Your task to perform on an android device: Open ESPN.com Image 0: 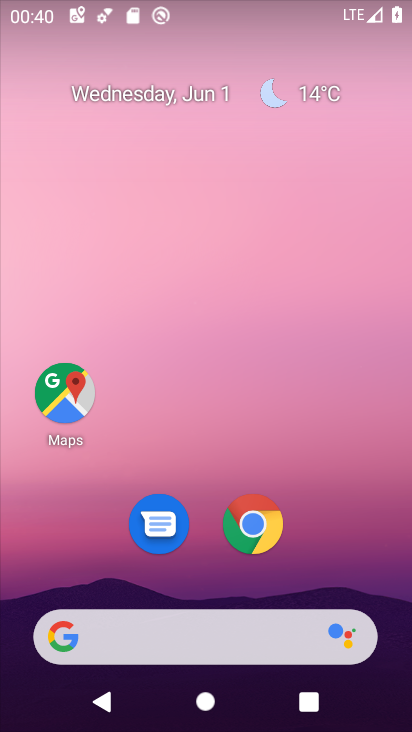
Step 0: click (258, 644)
Your task to perform on an android device: Open ESPN.com Image 1: 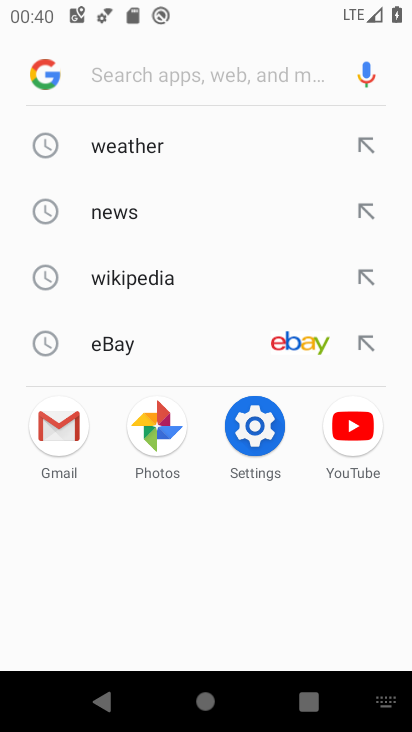
Step 1: type "espn.com"
Your task to perform on an android device: Open ESPN.com Image 2: 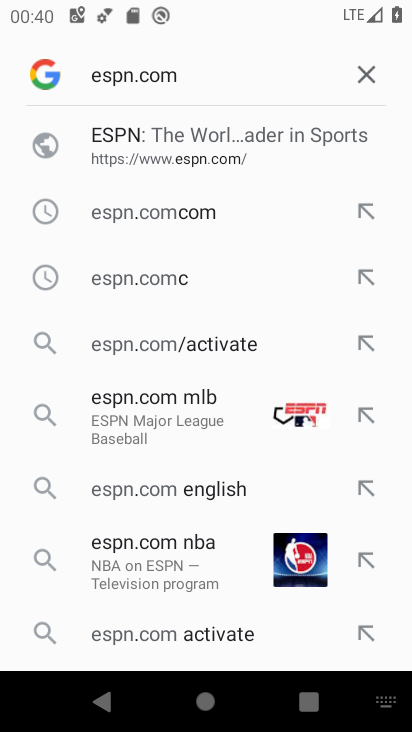
Step 2: click (157, 154)
Your task to perform on an android device: Open ESPN.com Image 3: 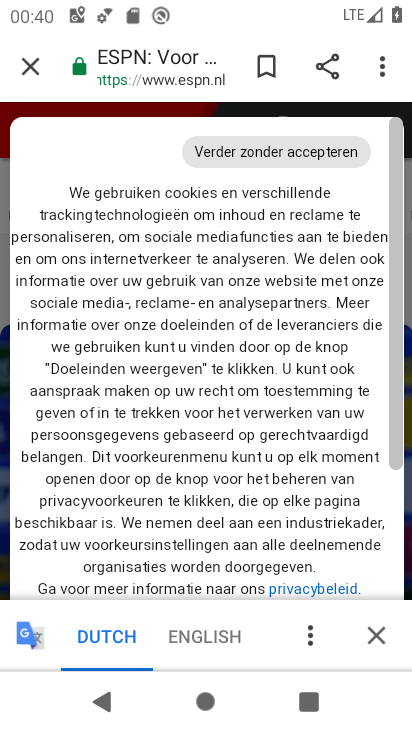
Step 3: task complete